Your task to perform on an android device: Check out the best rated books on Goodreads. Image 0: 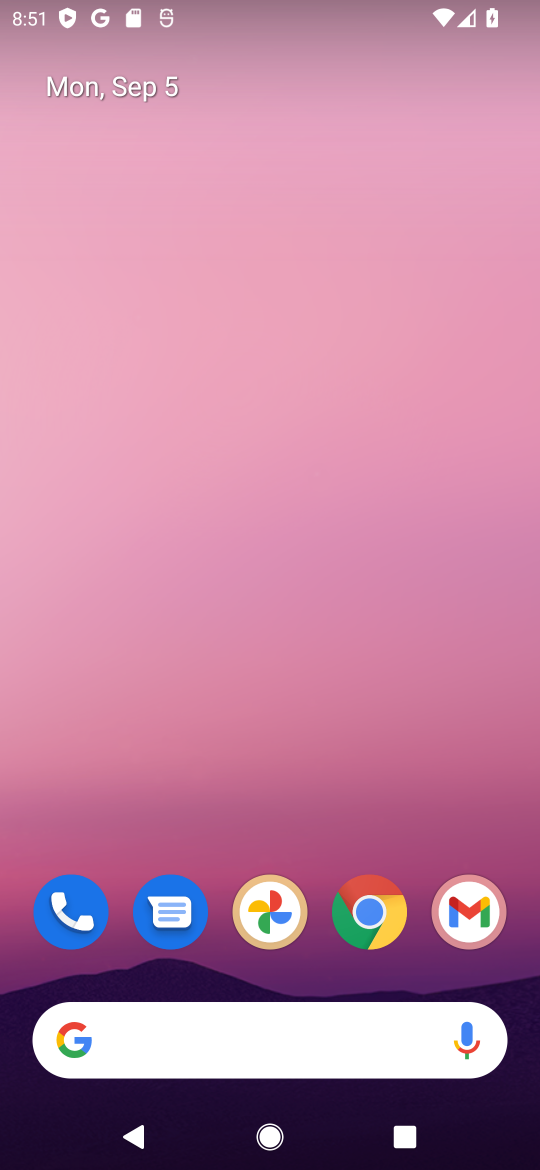
Step 0: click (362, 925)
Your task to perform on an android device: Check out the best rated books on Goodreads. Image 1: 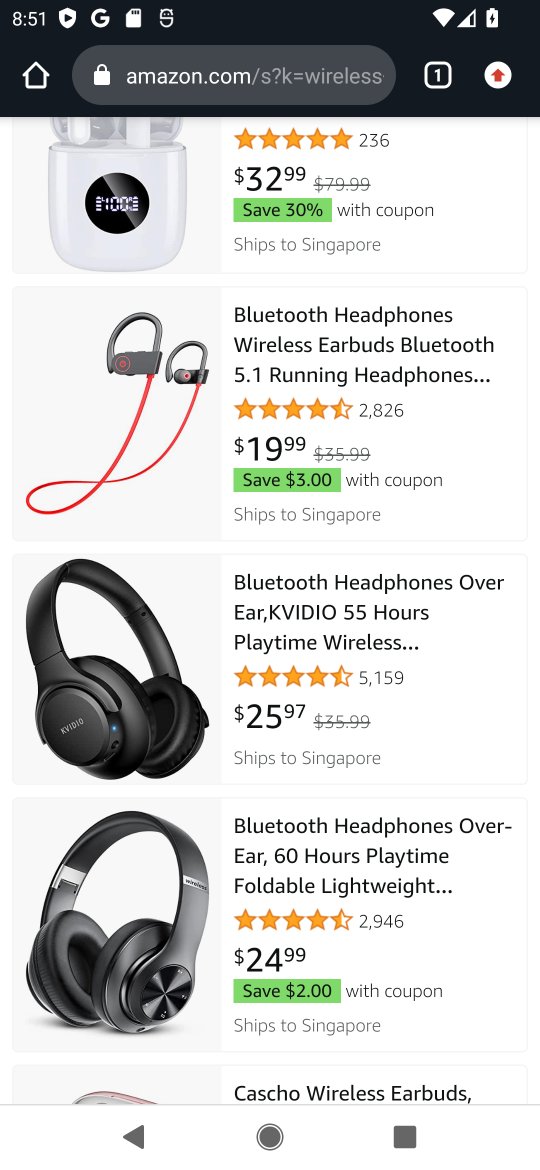
Step 1: click (281, 73)
Your task to perform on an android device: Check out the best rated books on Goodreads. Image 2: 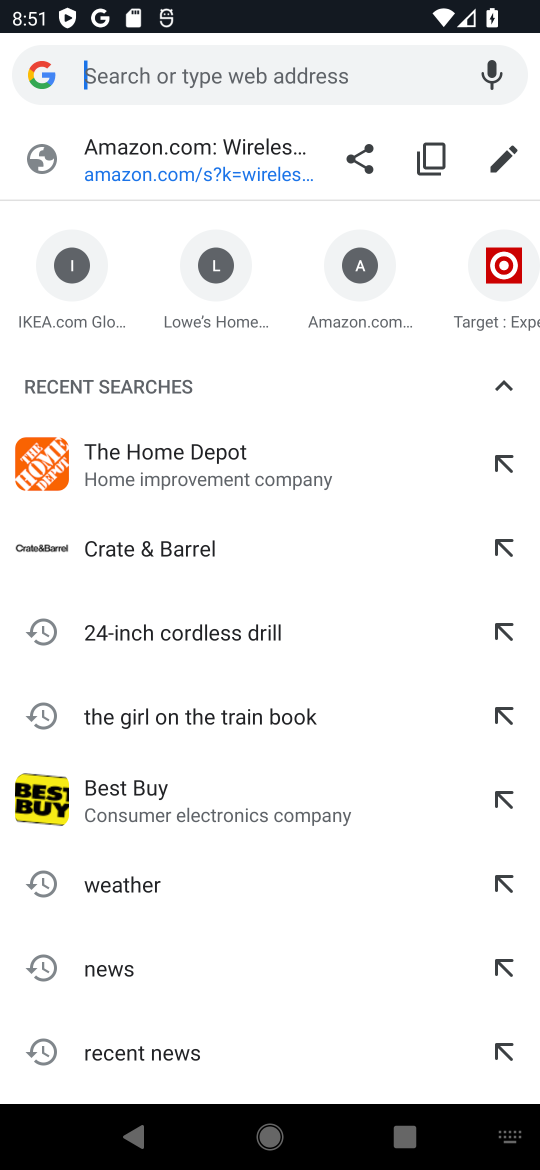
Step 2: type "best related books on Goodreads"
Your task to perform on an android device: Check out the best rated books on Goodreads. Image 3: 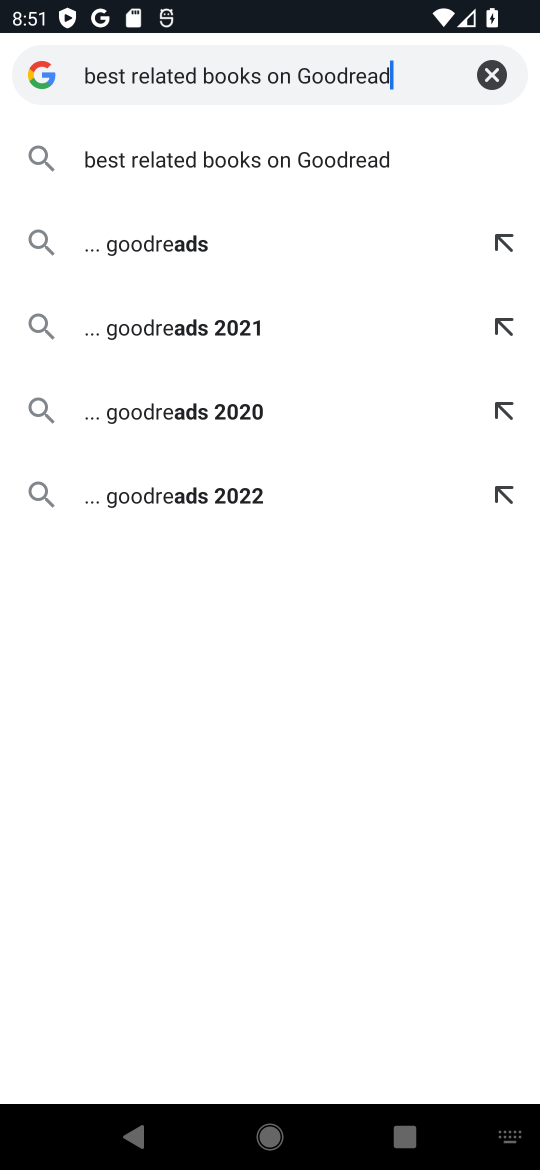
Step 3: press enter
Your task to perform on an android device: Check out the best rated books on Goodreads. Image 4: 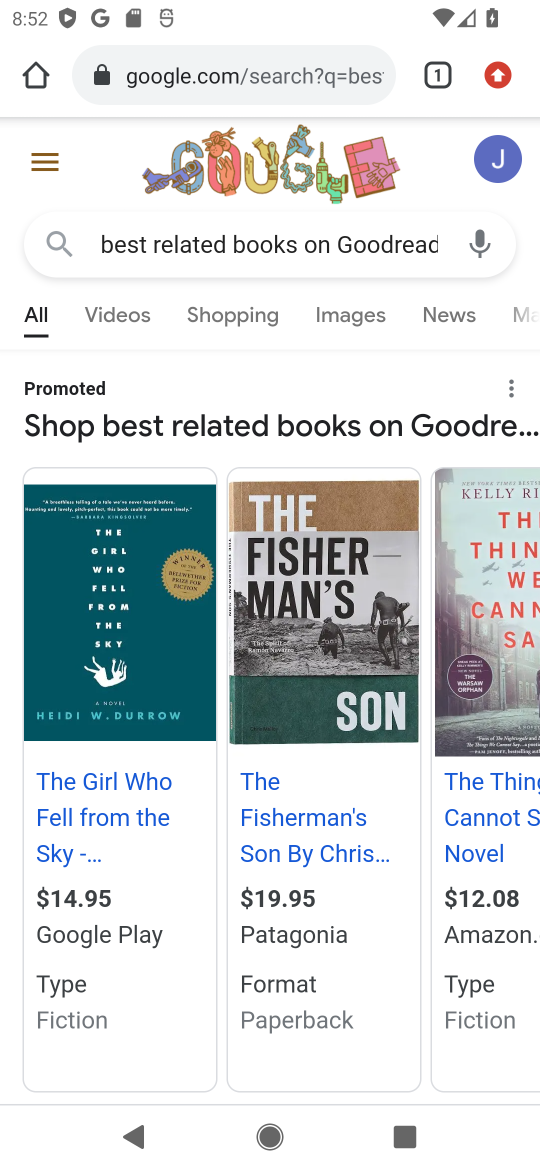
Step 4: drag from (411, 979) to (360, 265)
Your task to perform on an android device: Check out the best rated books on Goodreads. Image 5: 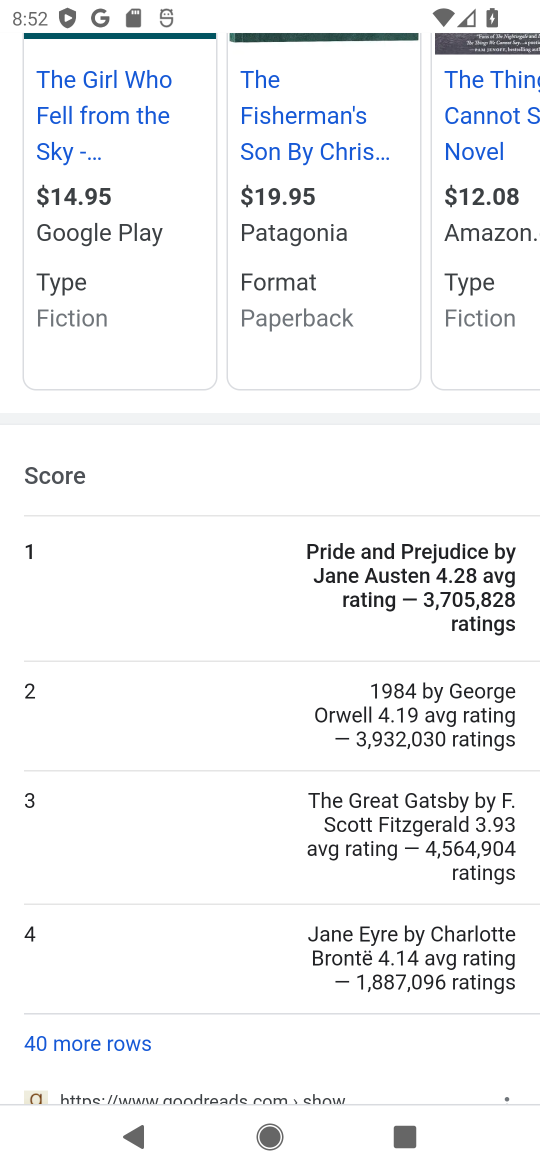
Step 5: drag from (270, 962) to (245, 496)
Your task to perform on an android device: Check out the best rated books on Goodreads. Image 6: 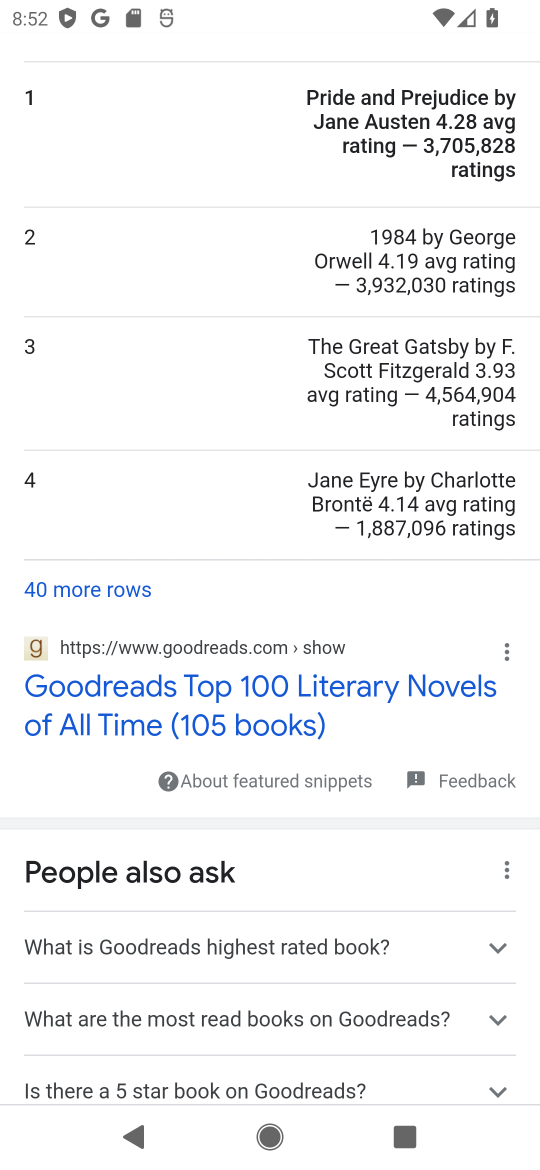
Step 6: click (213, 732)
Your task to perform on an android device: Check out the best rated books on Goodreads. Image 7: 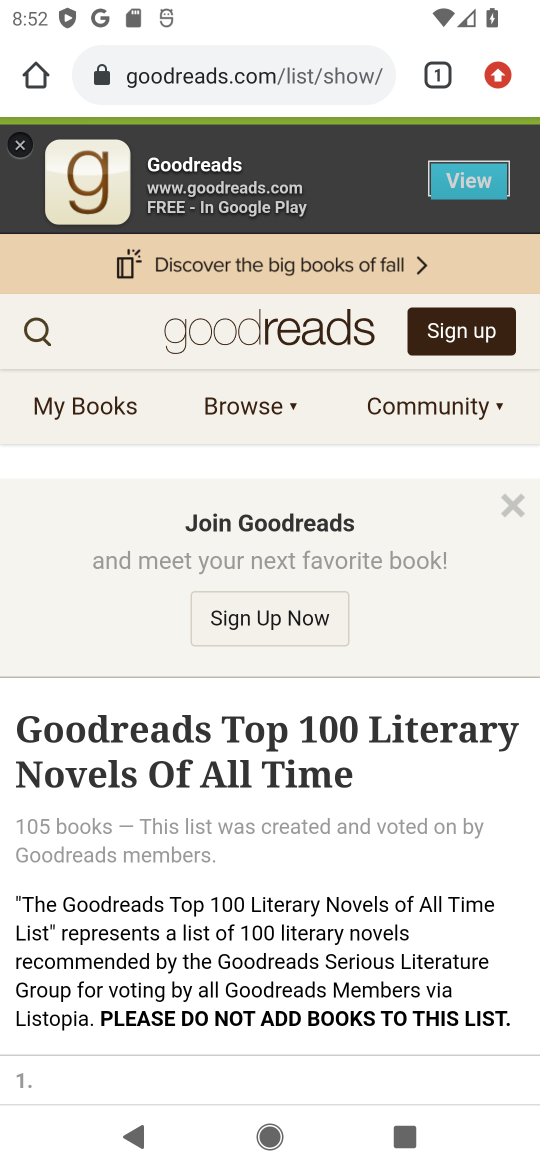
Step 7: task complete